Your task to perform on an android device: What's on my calendar today? Image 0: 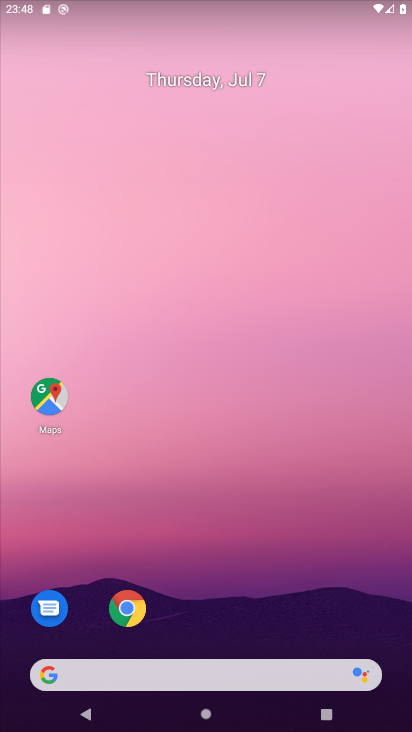
Step 0: drag from (252, 645) to (210, 251)
Your task to perform on an android device: What's on my calendar today? Image 1: 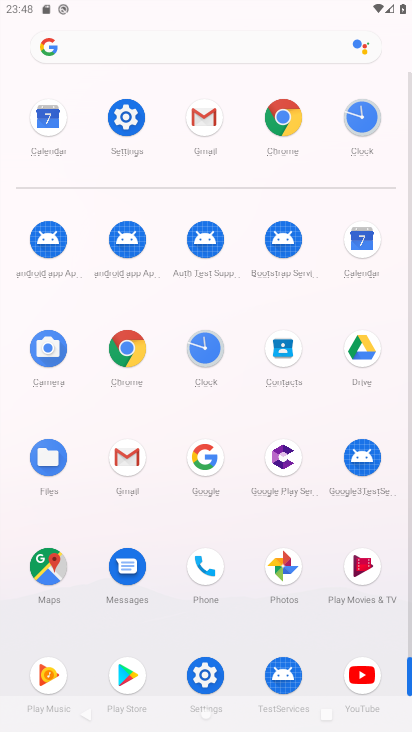
Step 1: click (375, 232)
Your task to perform on an android device: What's on my calendar today? Image 2: 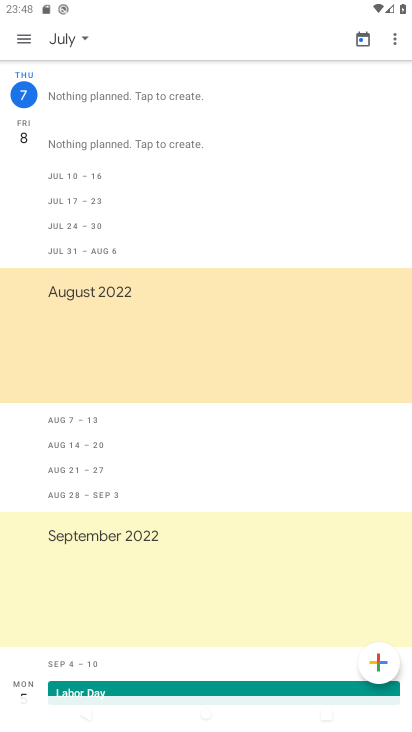
Step 2: task complete